Your task to perform on an android device: toggle airplane mode Image 0: 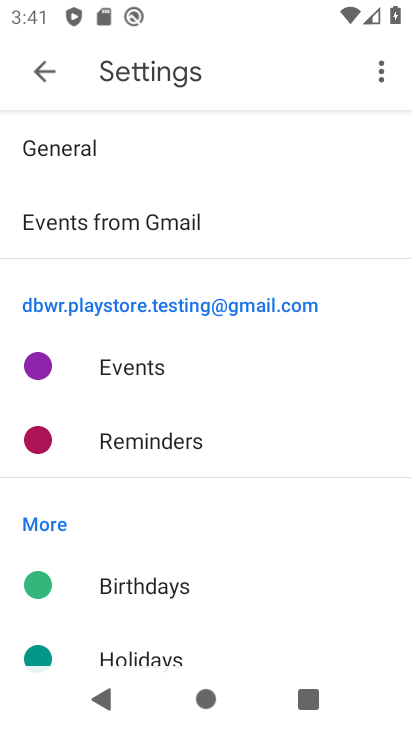
Step 0: press back button
Your task to perform on an android device: toggle airplane mode Image 1: 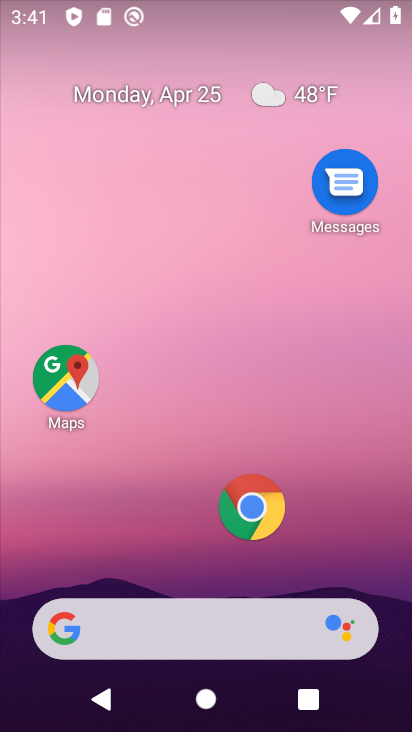
Step 1: drag from (124, 551) to (185, 78)
Your task to perform on an android device: toggle airplane mode Image 2: 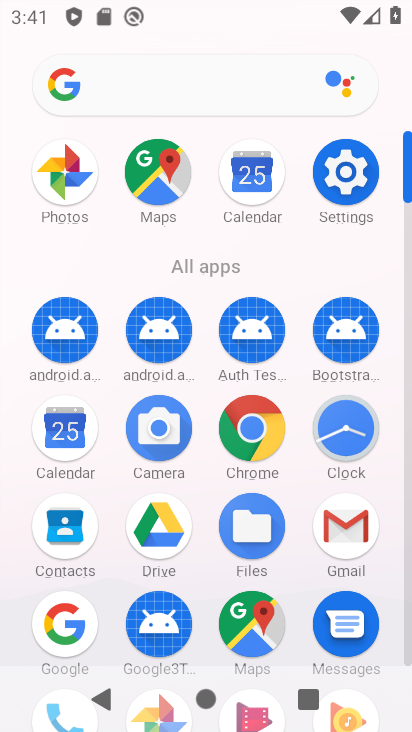
Step 2: drag from (209, 600) to (270, 301)
Your task to perform on an android device: toggle airplane mode Image 3: 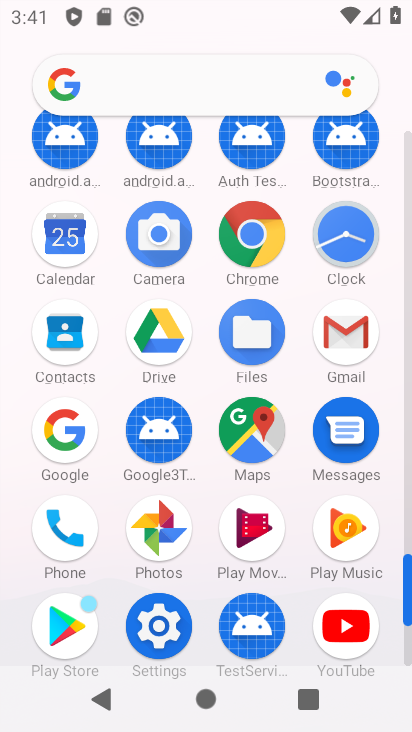
Step 3: click (173, 640)
Your task to perform on an android device: toggle airplane mode Image 4: 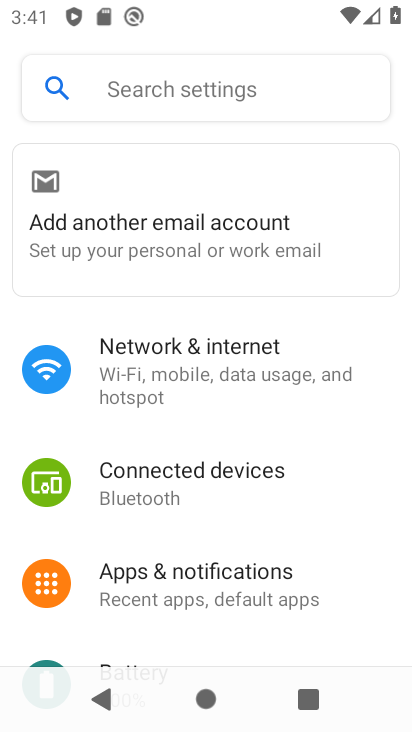
Step 4: click (205, 384)
Your task to perform on an android device: toggle airplane mode Image 5: 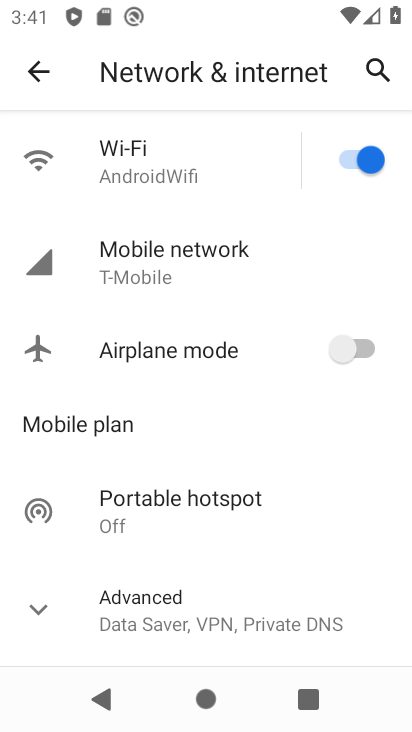
Step 5: click (381, 347)
Your task to perform on an android device: toggle airplane mode Image 6: 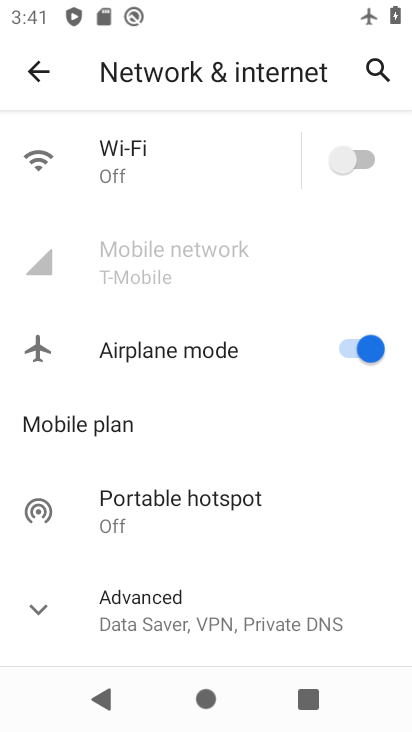
Step 6: task complete